Your task to perform on an android device: Go to notification settings Image 0: 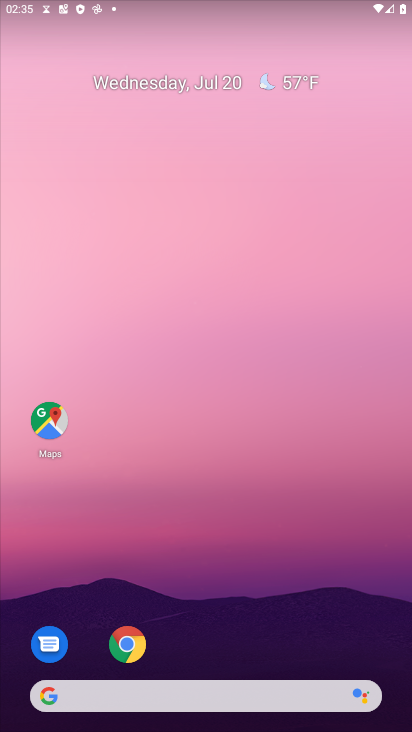
Step 0: press home button
Your task to perform on an android device: Go to notification settings Image 1: 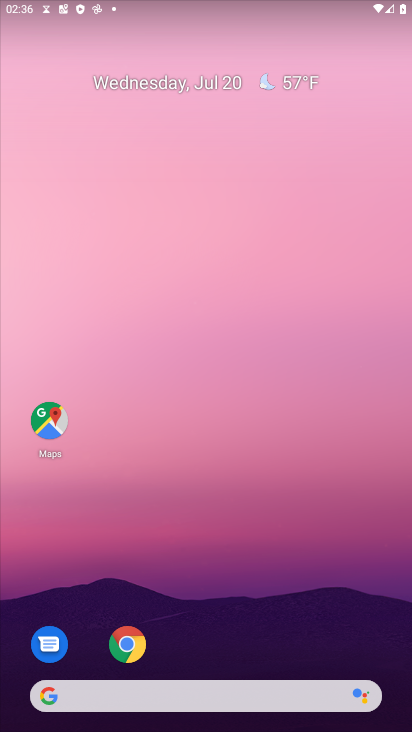
Step 1: drag from (245, 499) to (274, 39)
Your task to perform on an android device: Go to notification settings Image 2: 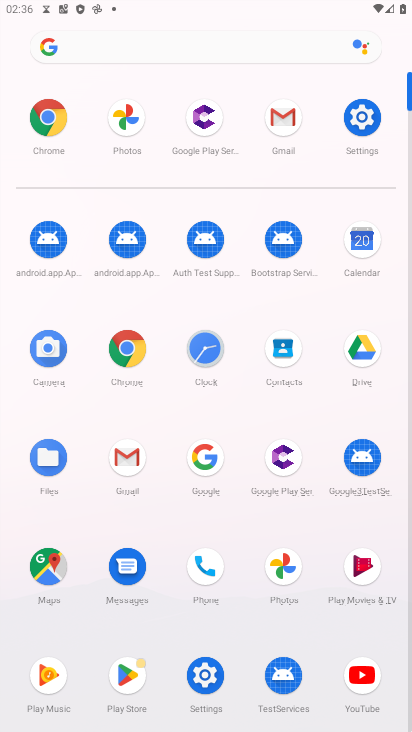
Step 2: click (365, 111)
Your task to perform on an android device: Go to notification settings Image 3: 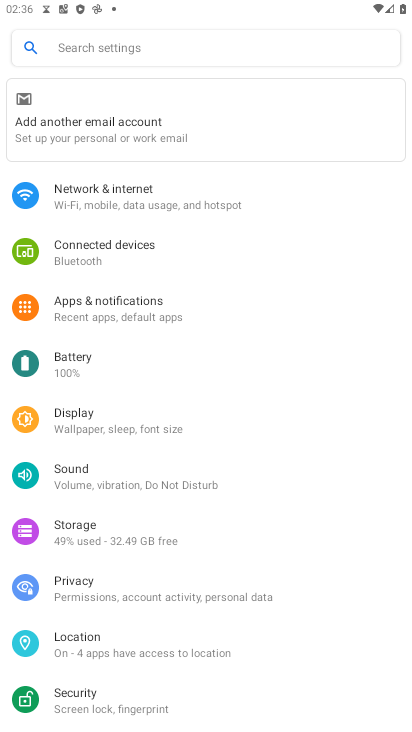
Step 3: click (128, 303)
Your task to perform on an android device: Go to notification settings Image 4: 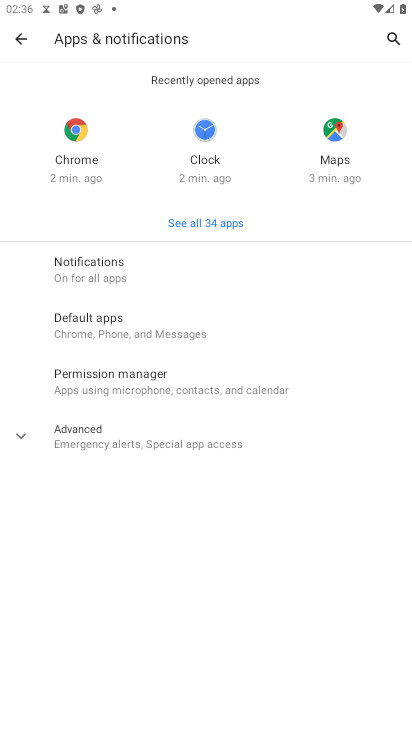
Step 4: click (105, 269)
Your task to perform on an android device: Go to notification settings Image 5: 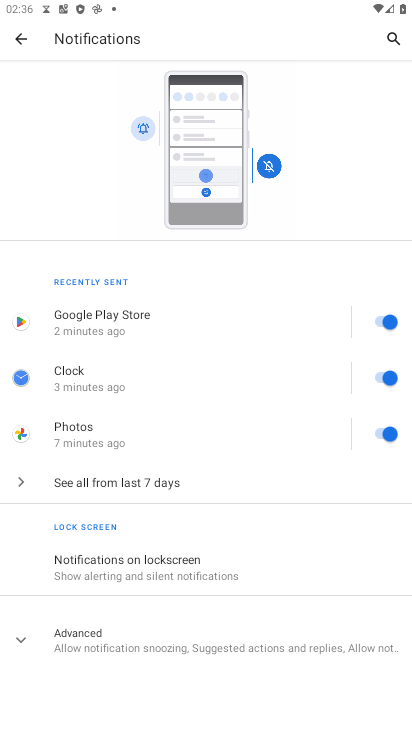
Step 5: task complete